Your task to perform on an android device: turn off data saver in the chrome app Image 0: 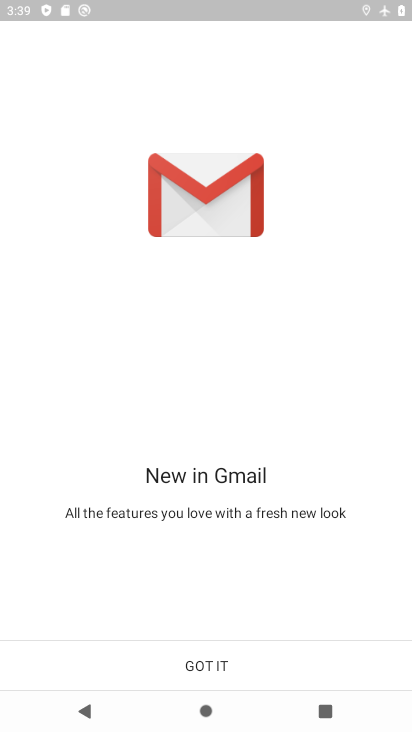
Step 0: press home button
Your task to perform on an android device: turn off data saver in the chrome app Image 1: 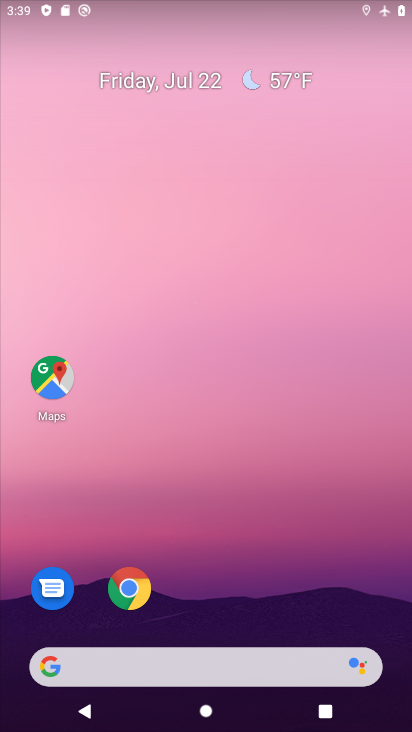
Step 1: drag from (200, 634) to (202, 105)
Your task to perform on an android device: turn off data saver in the chrome app Image 2: 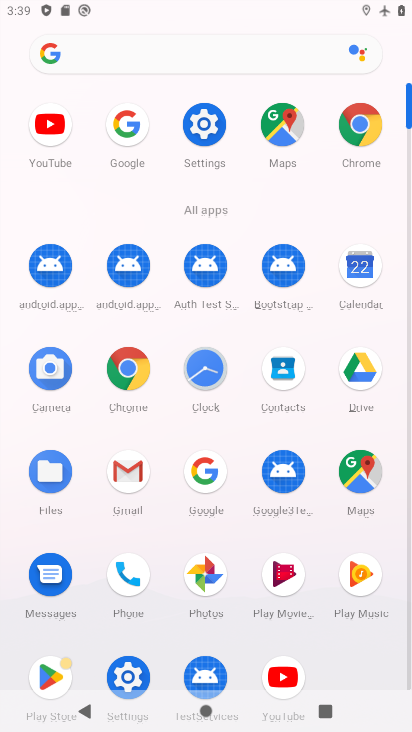
Step 2: click (120, 388)
Your task to perform on an android device: turn off data saver in the chrome app Image 3: 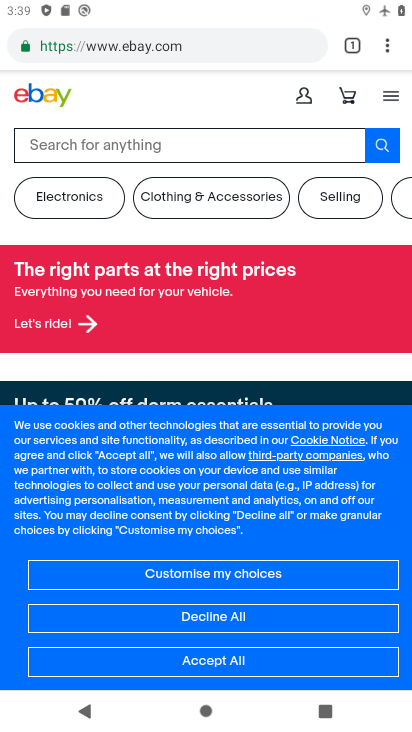
Step 3: click (383, 55)
Your task to perform on an android device: turn off data saver in the chrome app Image 4: 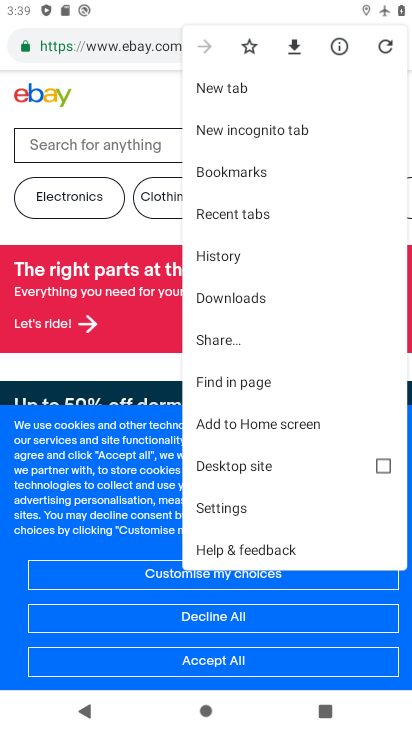
Step 4: click (235, 509)
Your task to perform on an android device: turn off data saver in the chrome app Image 5: 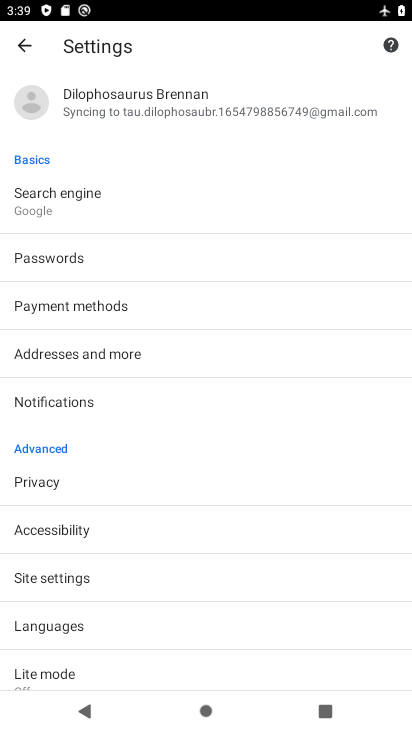
Step 5: drag from (94, 644) to (88, 386)
Your task to perform on an android device: turn off data saver in the chrome app Image 6: 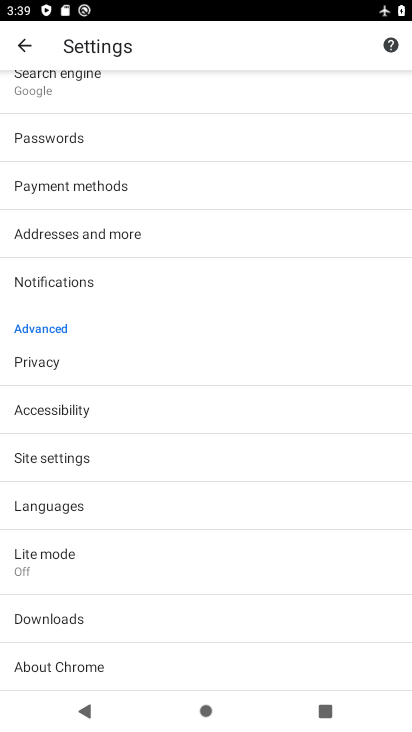
Step 6: click (85, 567)
Your task to perform on an android device: turn off data saver in the chrome app Image 7: 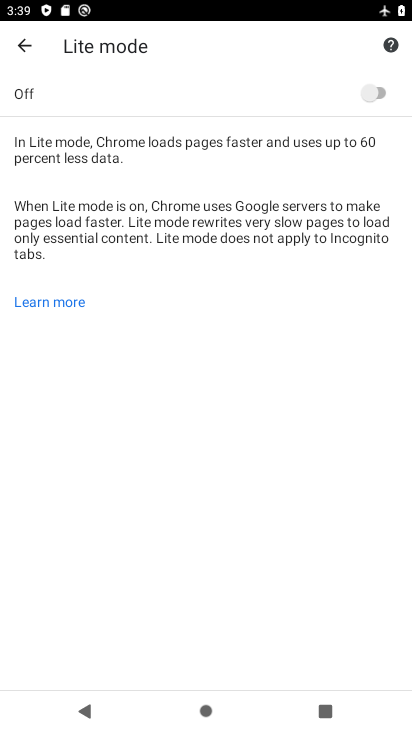
Step 7: task complete